Your task to perform on an android device: Empty the shopping cart on ebay.com. Search for asus rog on ebay.com, select the first entry, and add it to the cart. Image 0: 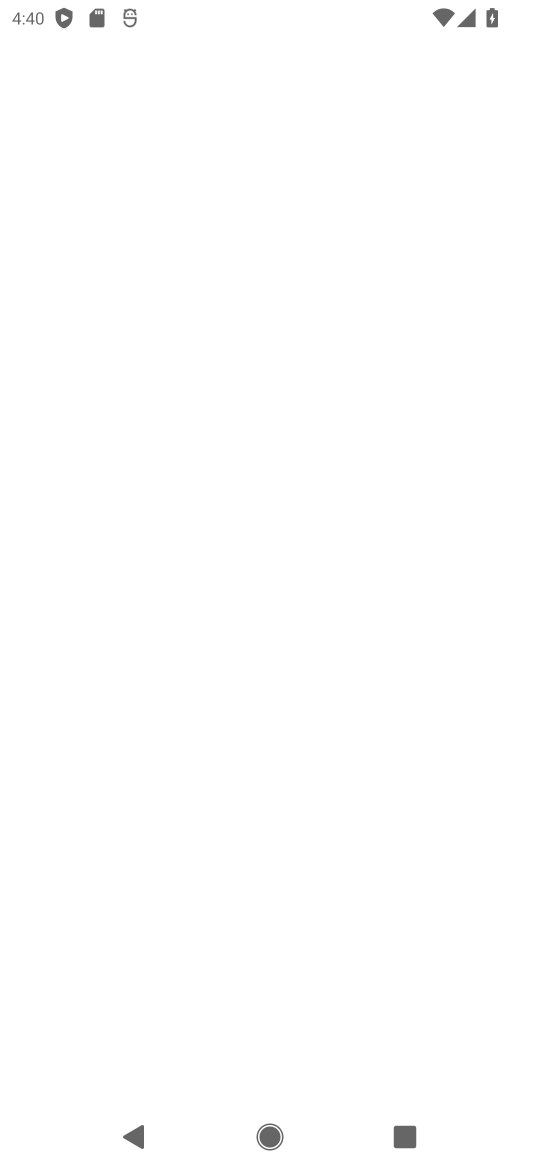
Step 0: press home button
Your task to perform on an android device: Empty the shopping cart on ebay.com. Search for asus rog on ebay.com, select the first entry, and add it to the cart. Image 1: 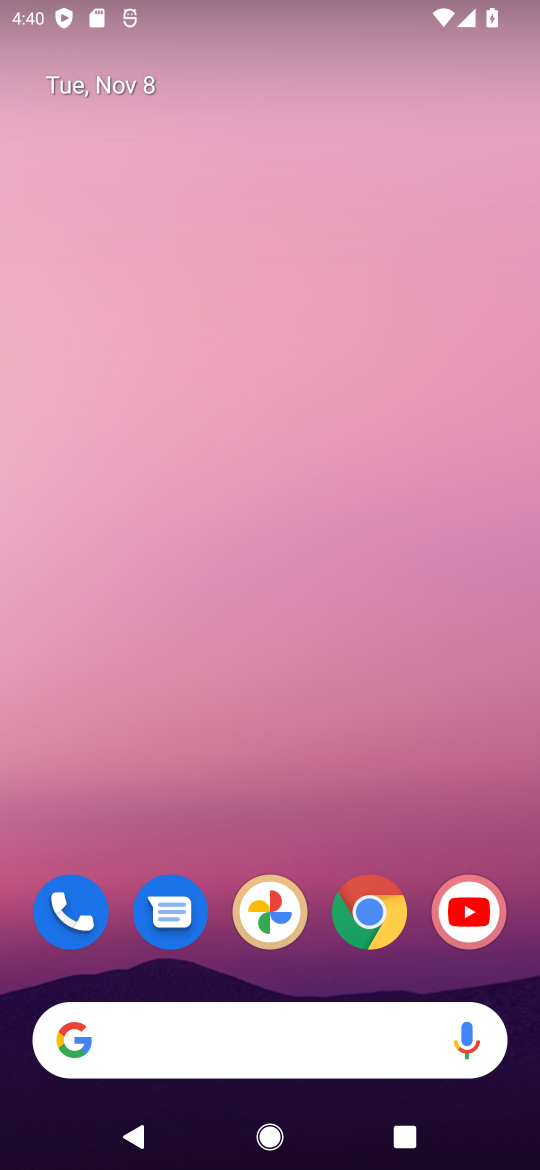
Step 1: click (374, 910)
Your task to perform on an android device: Empty the shopping cart on ebay.com. Search for asus rog on ebay.com, select the first entry, and add it to the cart. Image 2: 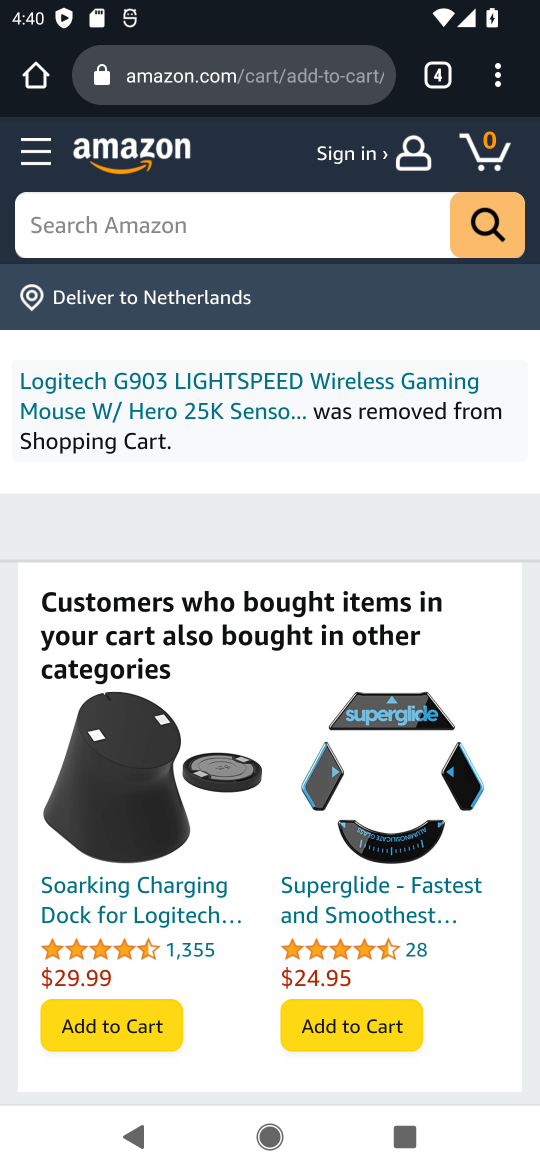
Step 2: click (448, 82)
Your task to perform on an android device: Empty the shopping cart on ebay.com. Search for asus rog on ebay.com, select the first entry, and add it to the cart. Image 3: 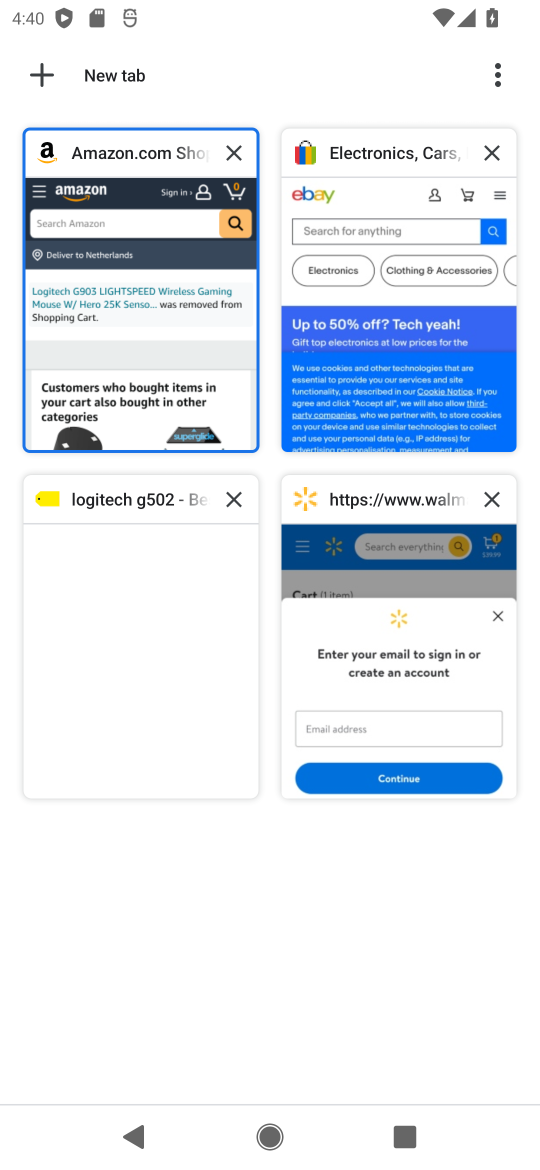
Step 3: click (370, 271)
Your task to perform on an android device: Empty the shopping cart on ebay.com. Search for asus rog on ebay.com, select the first entry, and add it to the cart. Image 4: 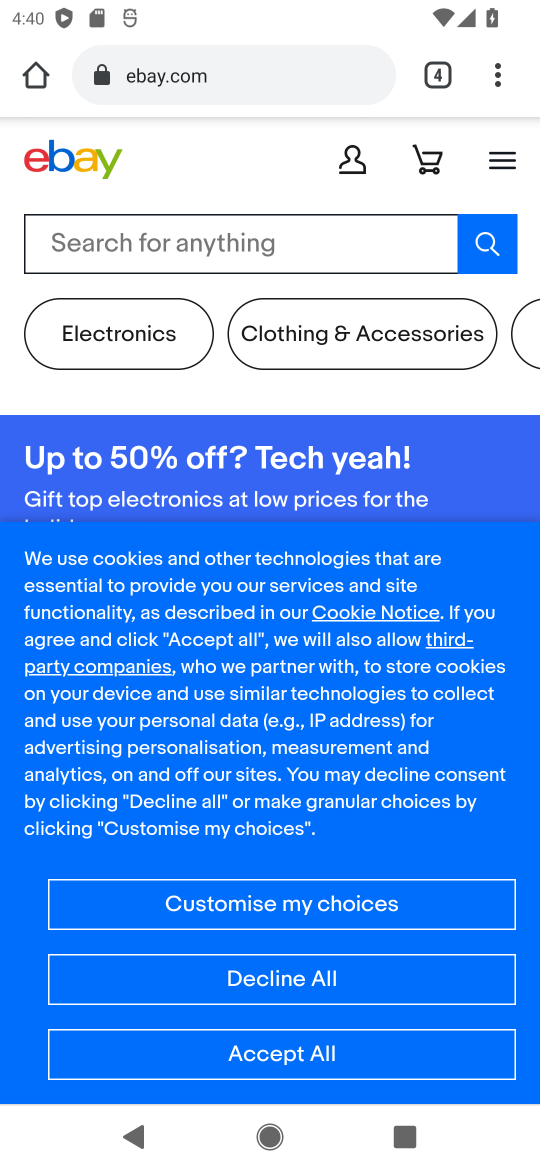
Step 4: click (309, 957)
Your task to perform on an android device: Empty the shopping cart on ebay.com. Search for asus rog on ebay.com, select the first entry, and add it to the cart. Image 5: 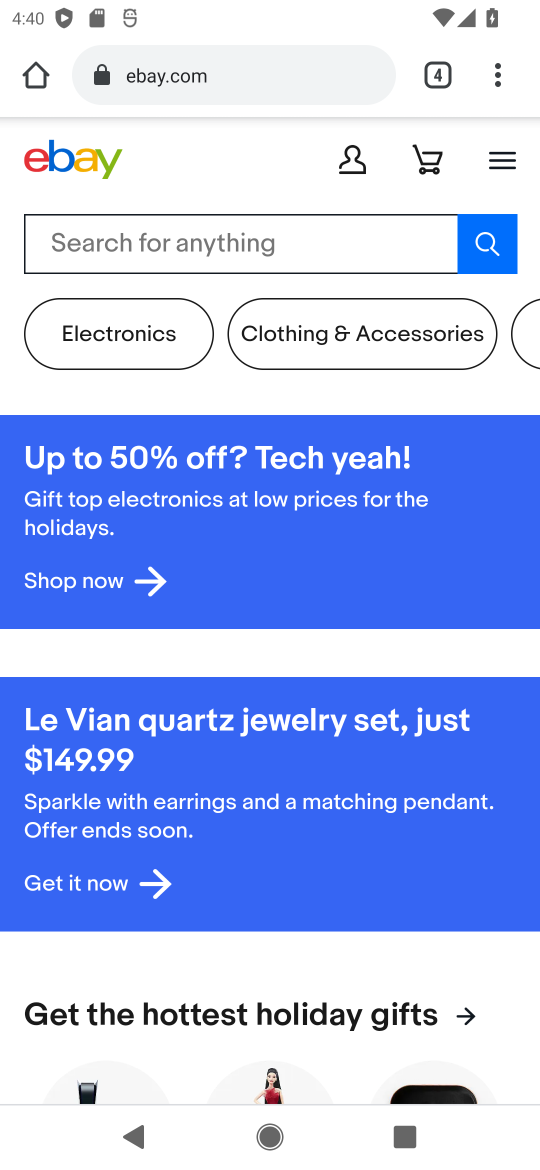
Step 5: click (263, 233)
Your task to perform on an android device: Empty the shopping cart on ebay.com. Search for asus rog on ebay.com, select the first entry, and add it to the cart. Image 6: 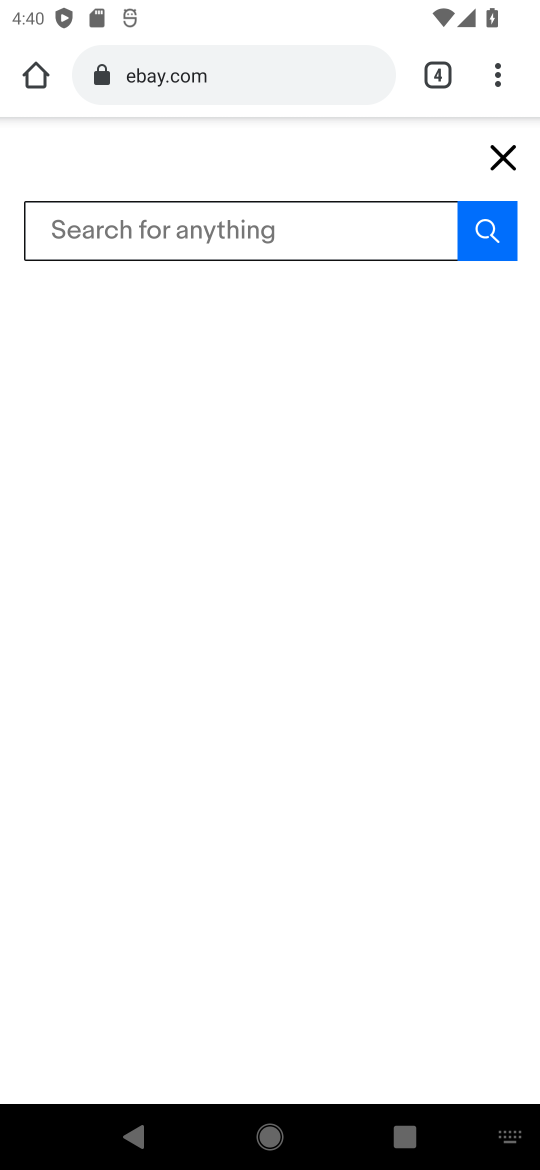
Step 6: type "asus rog"
Your task to perform on an android device: Empty the shopping cart on ebay.com. Search for asus rog on ebay.com, select the first entry, and add it to the cart. Image 7: 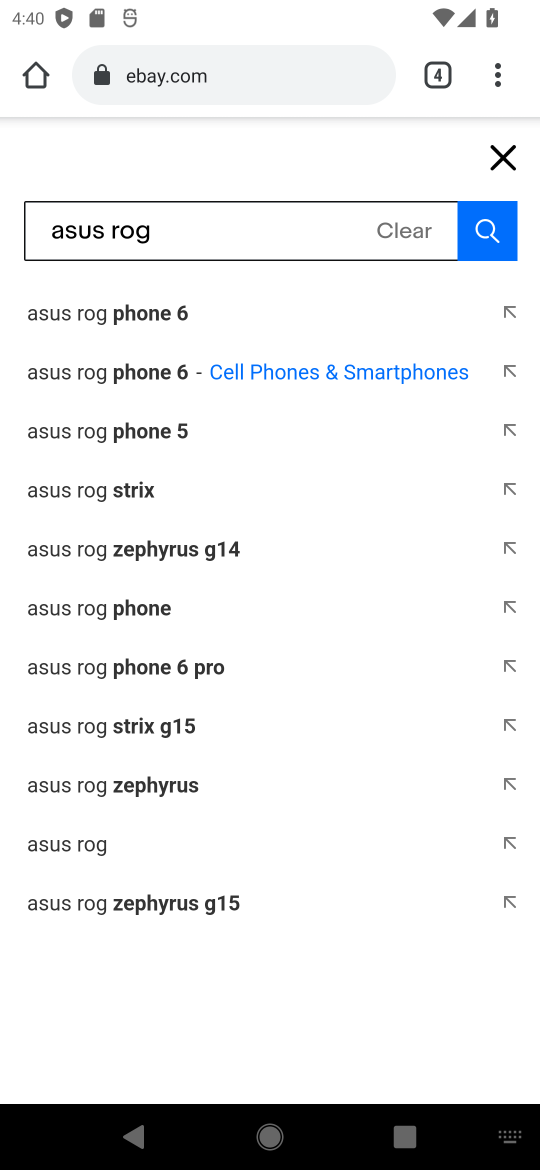
Step 7: click (154, 364)
Your task to perform on an android device: Empty the shopping cart on ebay.com. Search for asus rog on ebay.com, select the first entry, and add it to the cart. Image 8: 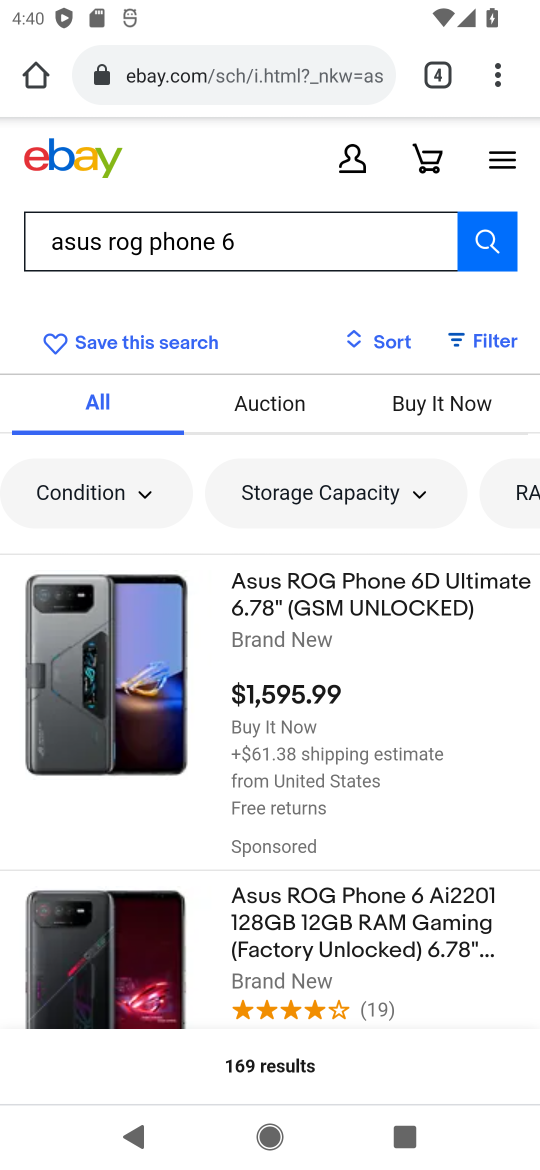
Step 8: click (356, 615)
Your task to perform on an android device: Empty the shopping cart on ebay.com. Search for asus rog on ebay.com, select the first entry, and add it to the cart. Image 9: 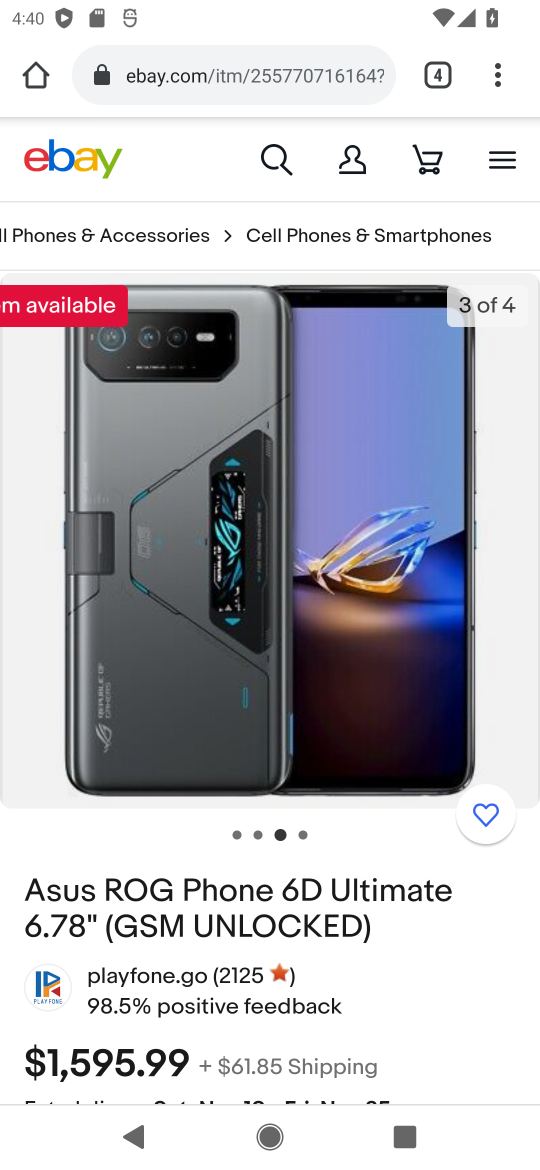
Step 9: drag from (371, 1015) to (501, 225)
Your task to perform on an android device: Empty the shopping cart on ebay.com. Search for asus rog on ebay.com, select the first entry, and add it to the cart. Image 10: 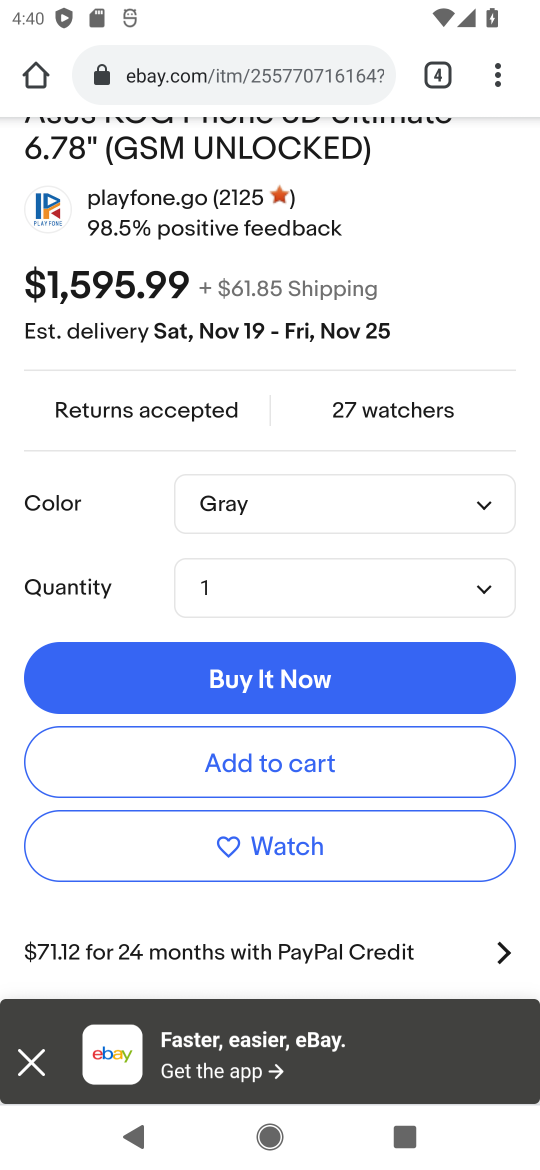
Step 10: click (323, 768)
Your task to perform on an android device: Empty the shopping cart on ebay.com. Search for asus rog on ebay.com, select the first entry, and add it to the cart. Image 11: 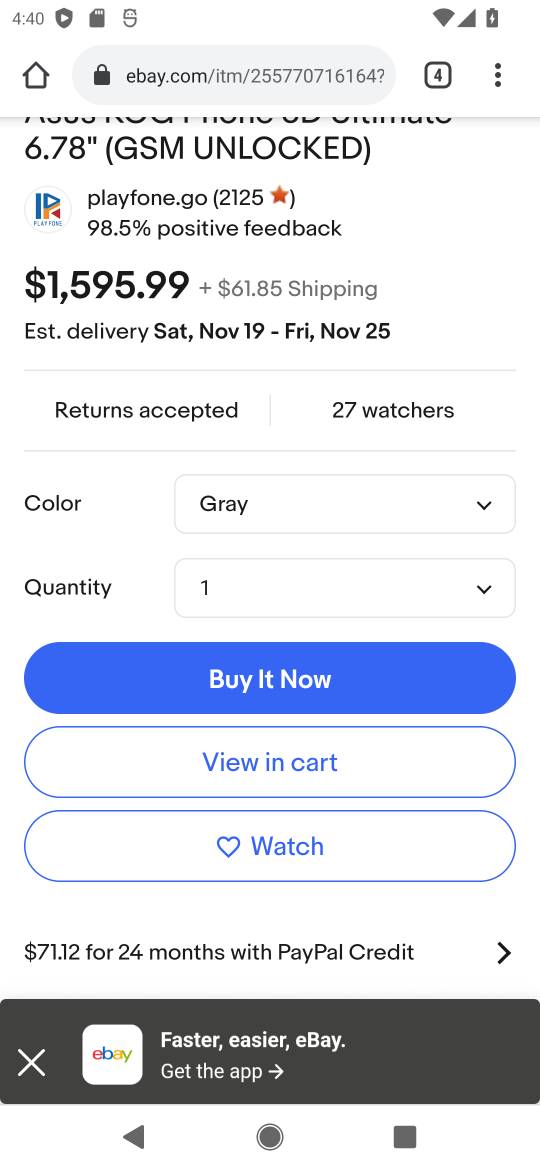
Step 11: task complete